Your task to perform on an android device: toggle show notifications on the lock screen Image 0: 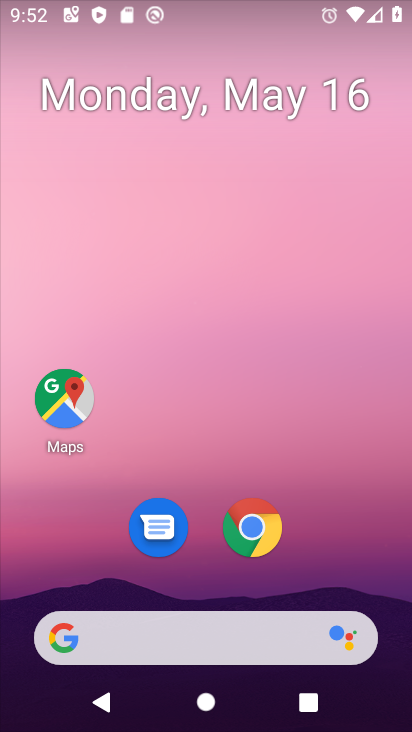
Step 0: drag from (341, 591) to (319, 3)
Your task to perform on an android device: toggle show notifications on the lock screen Image 1: 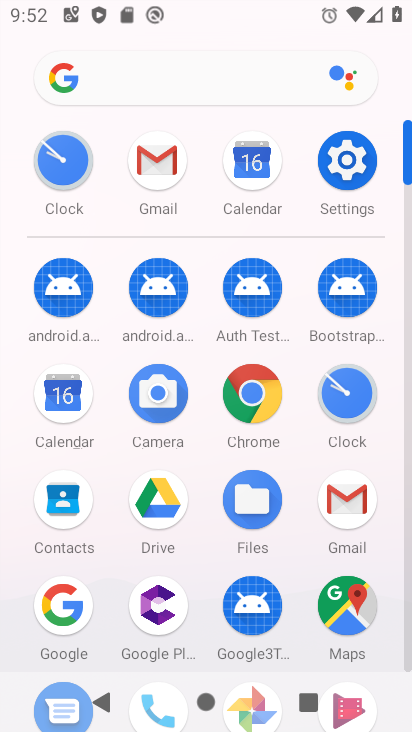
Step 1: click (347, 161)
Your task to perform on an android device: toggle show notifications on the lock screen Image 2: 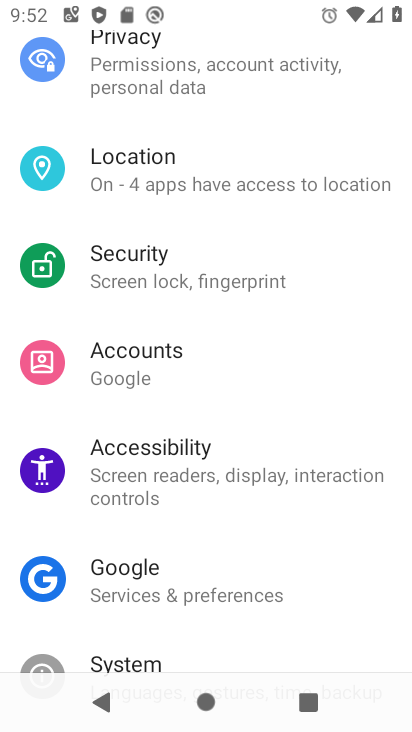
Step 2: drag from (347, 161) to (295, 420)
Your task to perform on an android device: toggle show notifications on the lock screen Image 3: 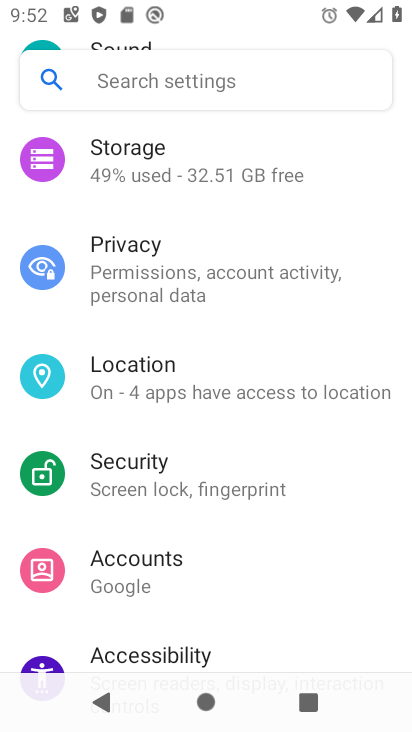
Step 3: drag from (222, 241) to (240, 545)
Your task to perform on an android device: toggle show notifications on the lock screen Image 4: 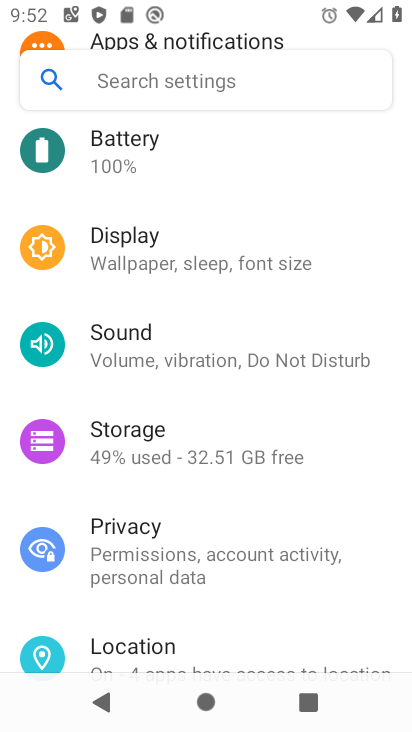
Step 4: drag from (270, 218) to (284, 542)
Your task to perform on an android device: toggle show notifications on the lock screen Image 5: 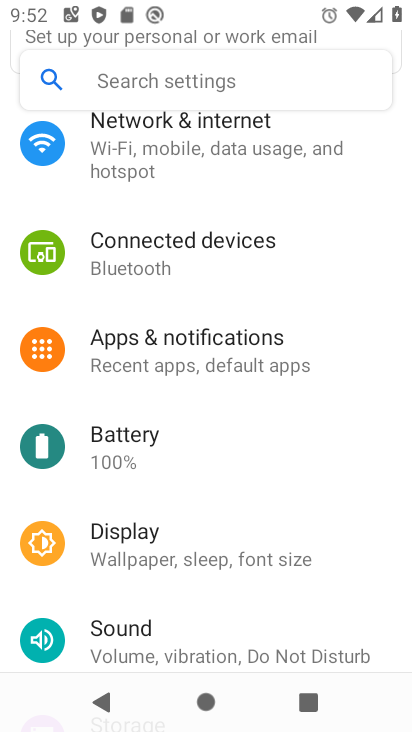
Step 5: click (210, 351)
Your task to perform on an android device: toggle show notifications on the lock screen Image 6: 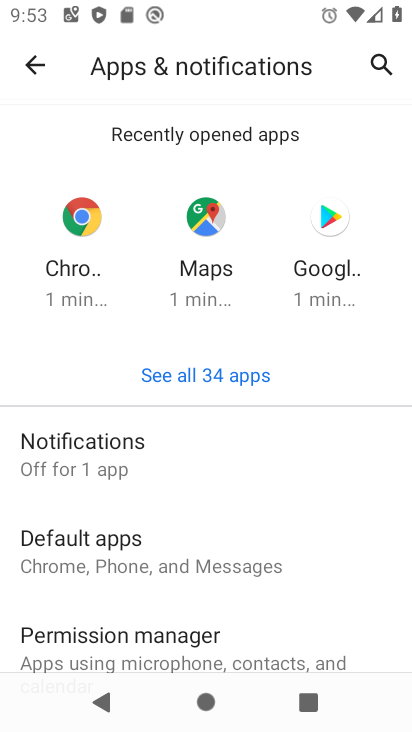
Step 6: click (59, 470)
Your task to perform on an android device: toggle show notifications on the lock screen Image 7: 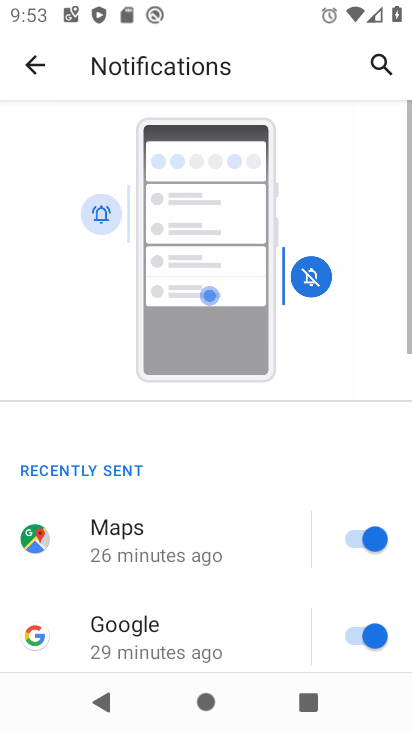
Step 7: drag from (217, 614) to (201, 92)
Your task to perform on an android device: toggle show notifications on the lock screen Image 8: 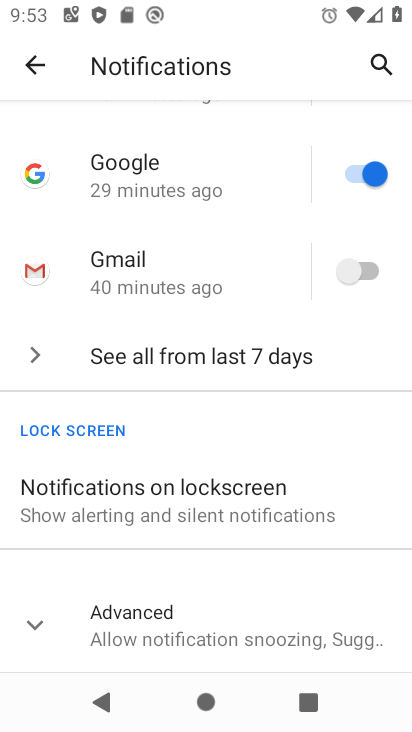
Step 8: click (121, 507)
Your task to perform on an android device: toggle show notifications on the lock screen Image 9: 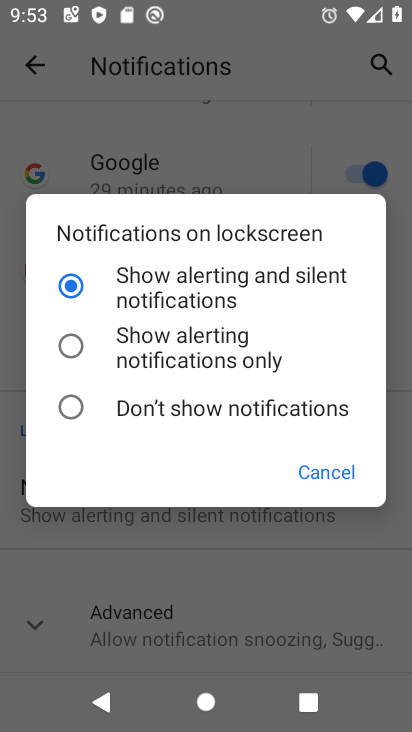
Step 9: click (71, 400)
Your task to perform on an android device: toggle show notifications on the lock screen Image 10: 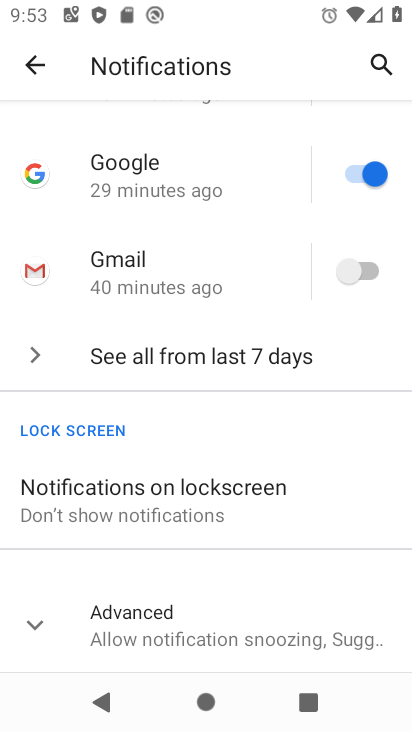
Step 10: task complete